Your task to perform on an android device: turn on wifi Image 0: 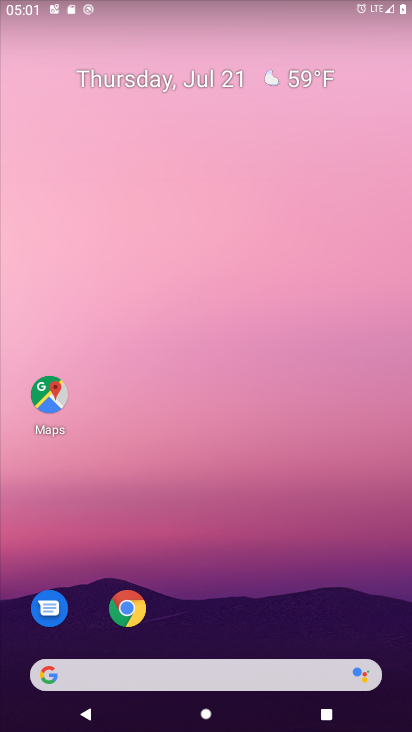
Step 0: drag from (277, 684) to (266, 53)
Your task to perform on an android device: turn on wifi Image 1: 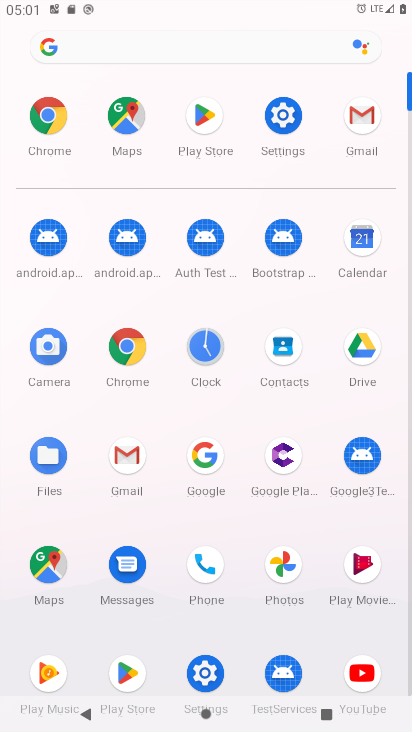
Step 1: click (279, 121)
Your task to perform on an android device: turn on wifi Image 2: 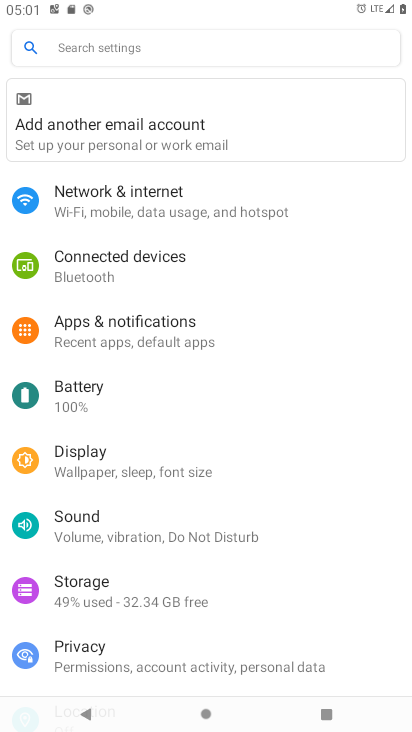
Step 2: click (180, 201)
Your task to perform on an android device: turn on wifi Image 3: 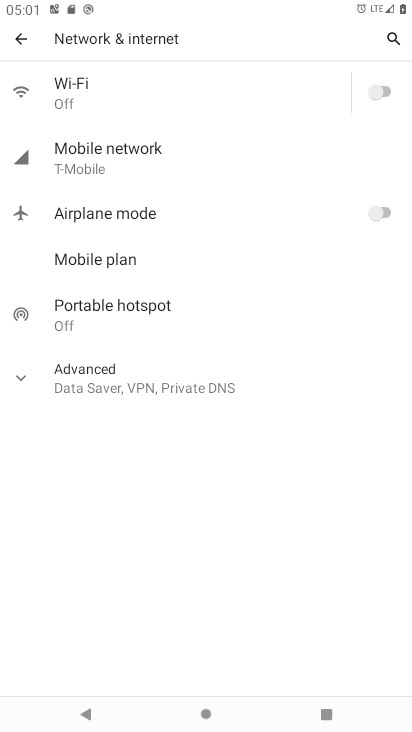
Step 3: click (389, 90)
Your task to perform on an android device: turn on wifi Image 4: 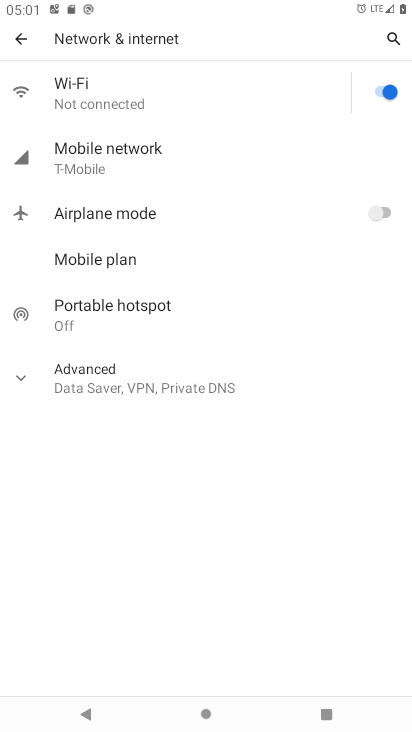
Step 4: task complete